Your task to perform on an android device: check storage Image 0: 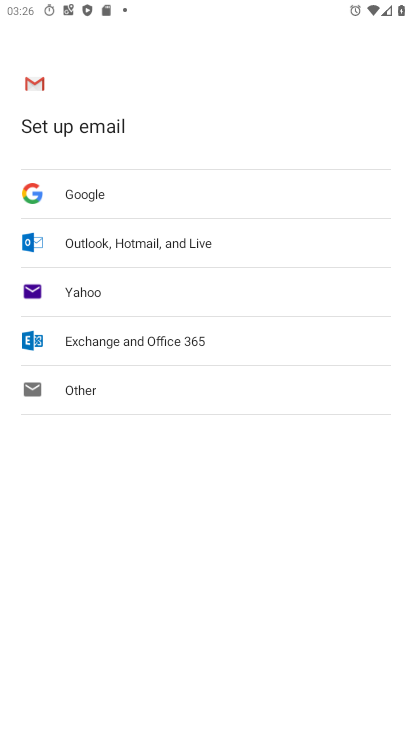
Step 0: press home button
Your task to perform on an android device: check storage Image 1: 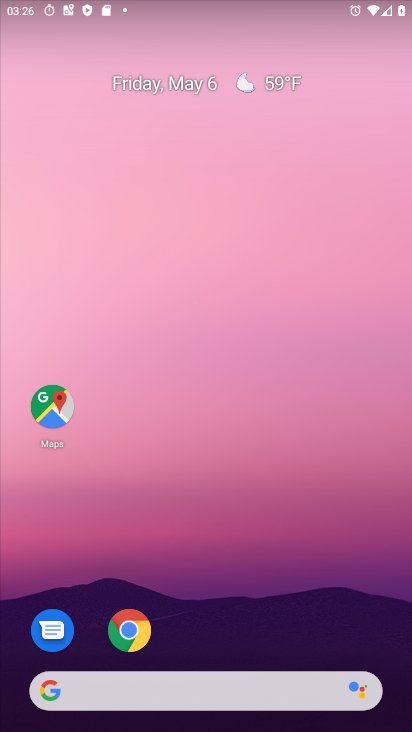
Step 1: drag from (238, 636) to (223, 218)
Your task to perform on an android device: check storage Image 2: 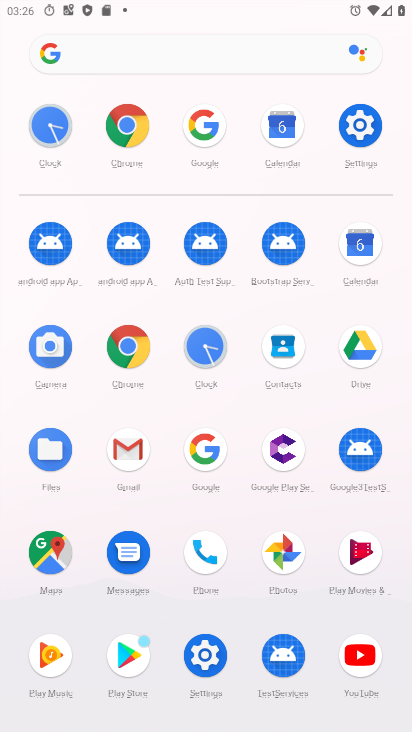
Step 2: click (371, 129)
Your task to perform on an android device: check storage Image 3: 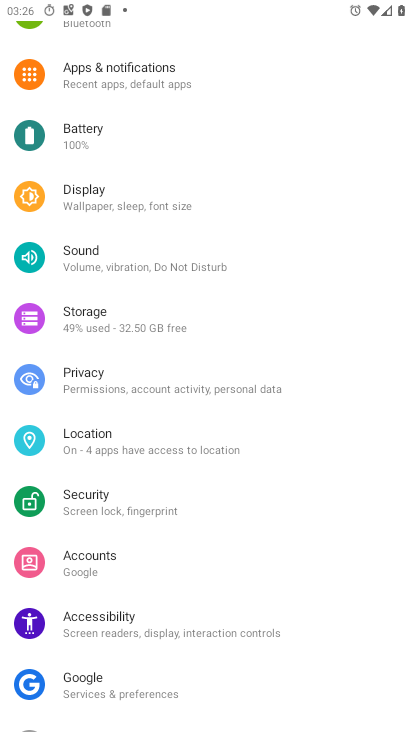
Step 3: click (107, 327)
Your task to perform on an android device: check storage Image 4: 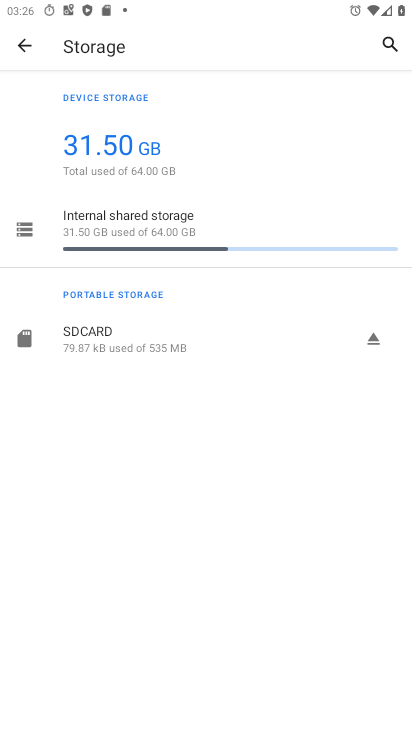
Step 4: task complete